Your task to perform on an android device: Turn off the flashlight Image 0: 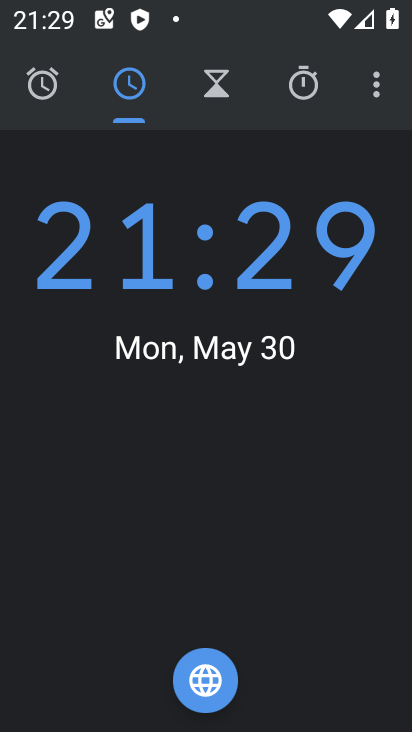
Step 0: press home button
Your task to perform on an android device: Turn off the flashlight Image 1: 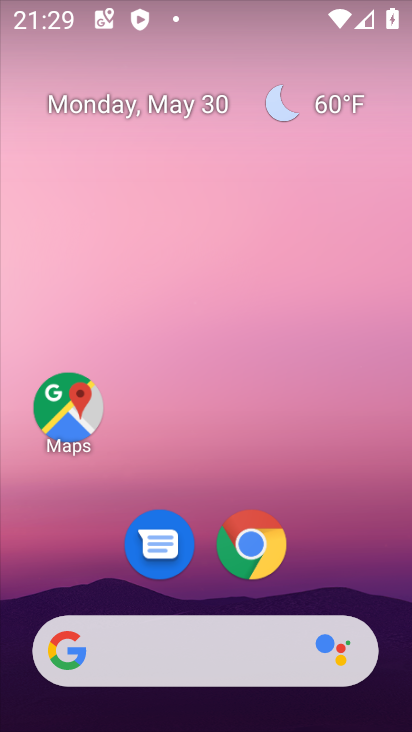
Step 1: drag from (308, 580) to (253, 190)
Your task to perform on an android device: Turn off the flashlight Image 2: 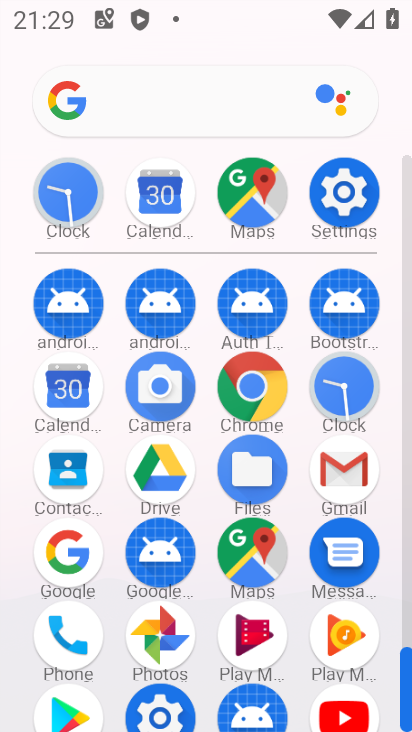
Step 2: click (346, 189)
Your task to perform on an android device: Turn off the flashlight Image 3: 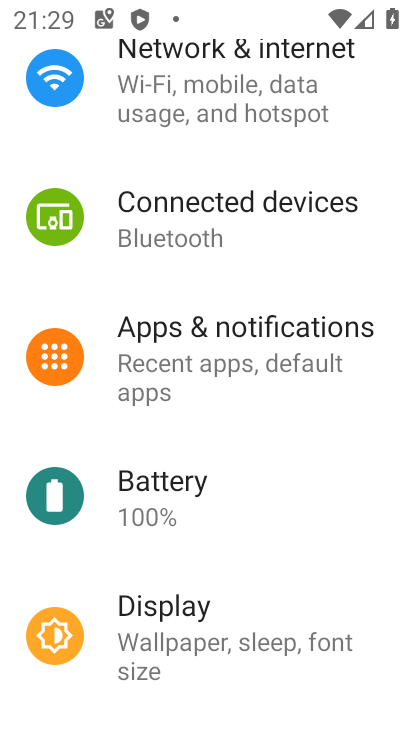
Step 3: drag from (212, 432) to (238, 372)
Your task to perform on an android device: Turn off the flashlight Image 4: 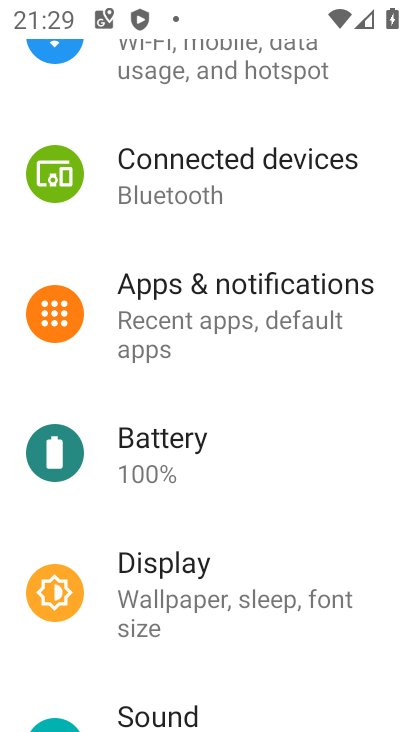
Step 4: click (228, 320)
Your task to perform on an android device: Turn off the flashlight Image 5: 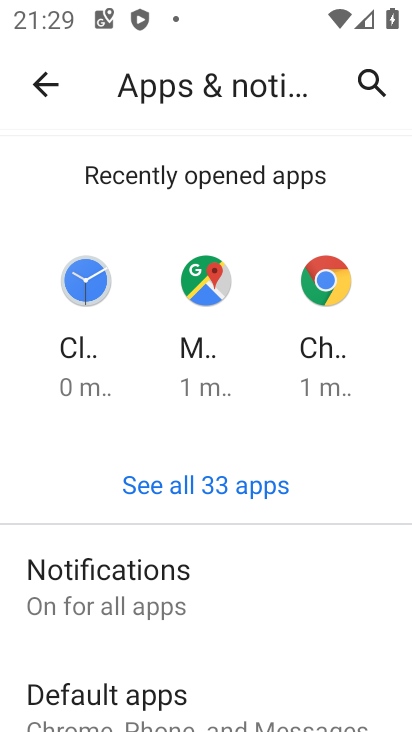
Step 5: click (34, 84)
Your task to perform on an android device: Turn off the flashlight Image 6: 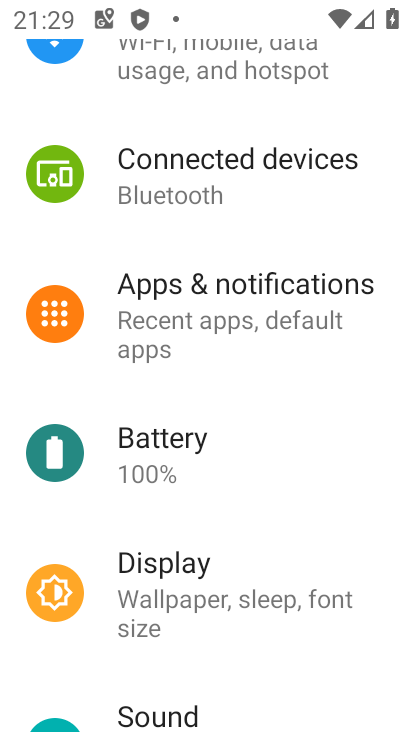
Step 6: click (222, 607)
Your task to perform on an android device: Turn off the flashlight Image 7: 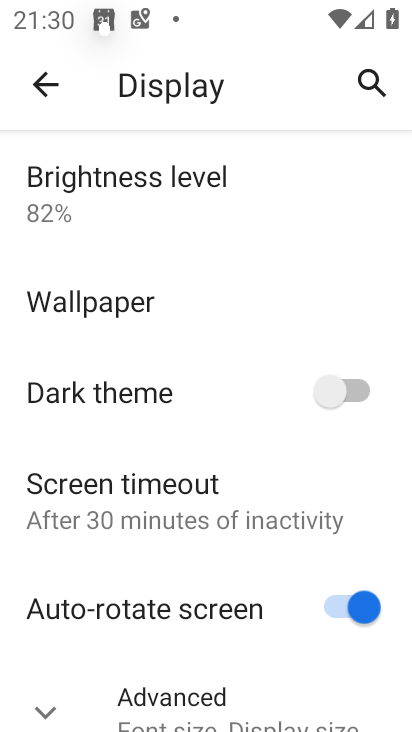
Step 7: drag from (108, 612) to (157, 482)
Your task to perform on an android device: Turn off the flashlight Image 8: 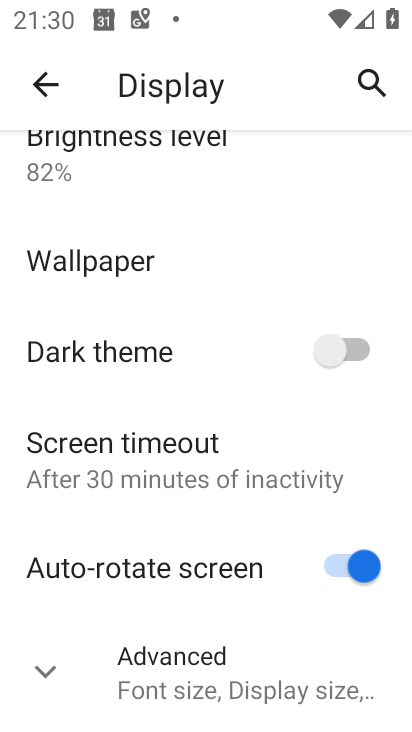
Step 8: click (253, 685)
Your task to perform on an android device: Turn off the flashlight Image 9: 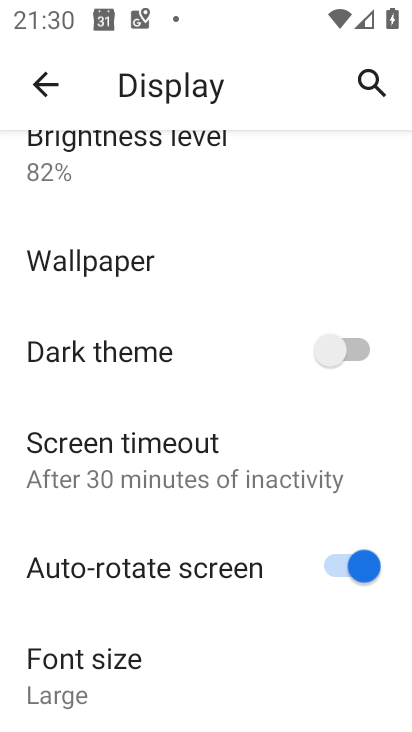
Step 9: task complete